Your task to perform on an android device: Open Google Chrome and open the bookmarks view Image 0: 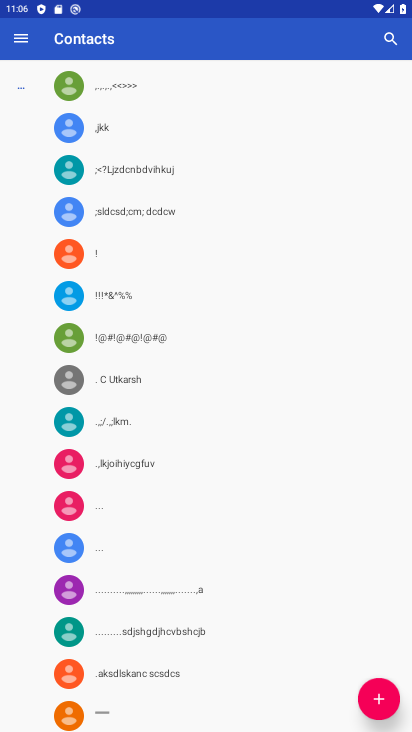
Step 0: press home button
Your task to perform on an android device: Open Google Chrome and open the bookmarks view Image 1: 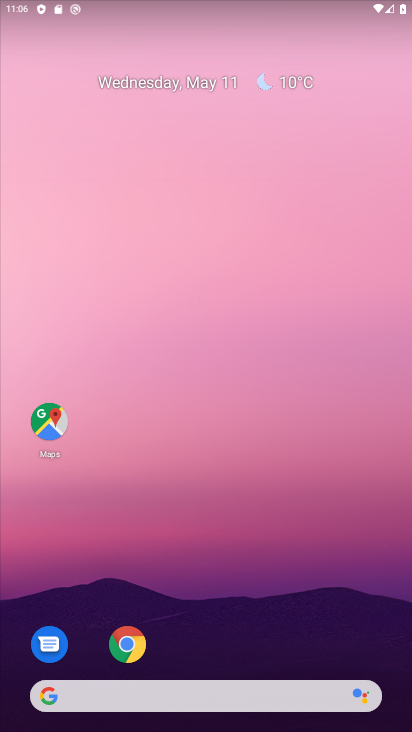
Step 1: drag from (288, 541) to (321, 45)
Your task to perform on an android device: Open Google Chrome and open the bookmarks view Image 2: 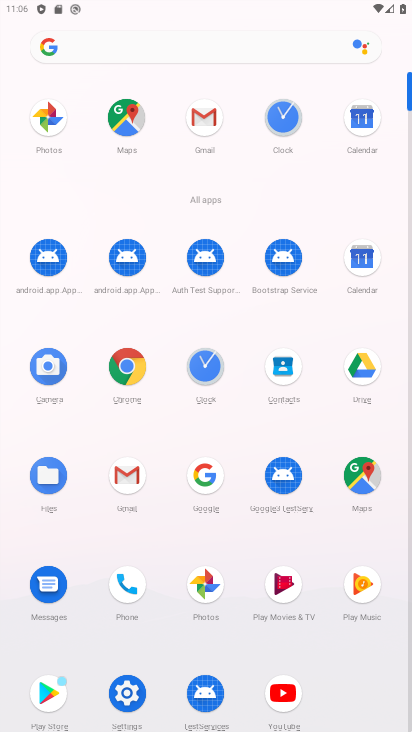
Step 2: click (132, 373)
Your task to perform on an android device: Open Google Chrome and open the bookmarks view Image 3: 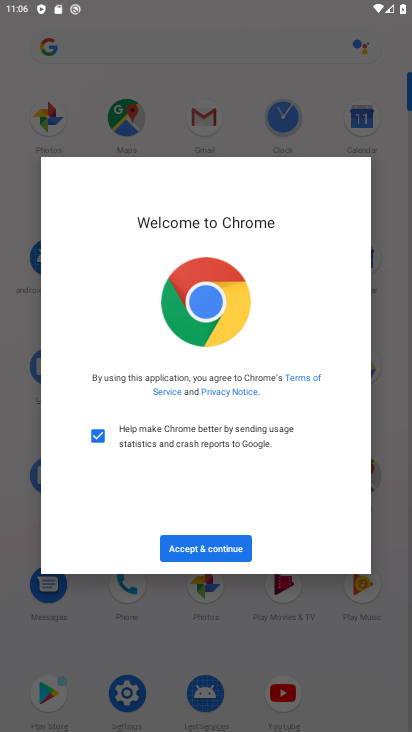
Step 3: click (209, 550)
Your task to perform on an android device: Open Google Chrome and open the bookmarks view Image 4: 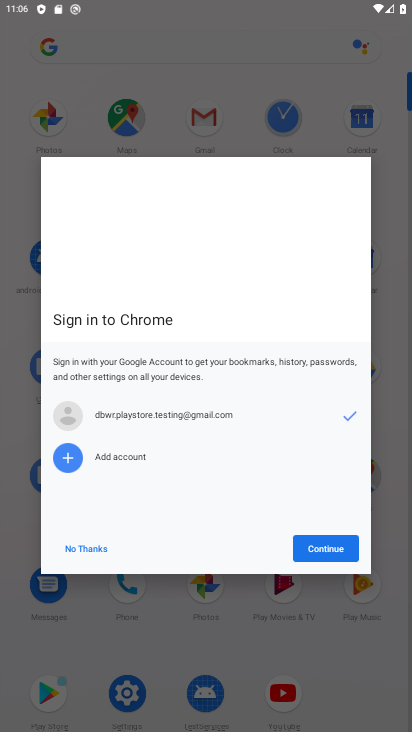
Step 4: click (342, 541)
Your task to perform on an android device: Open Google Chrome and open the bookmarks view Image 5: 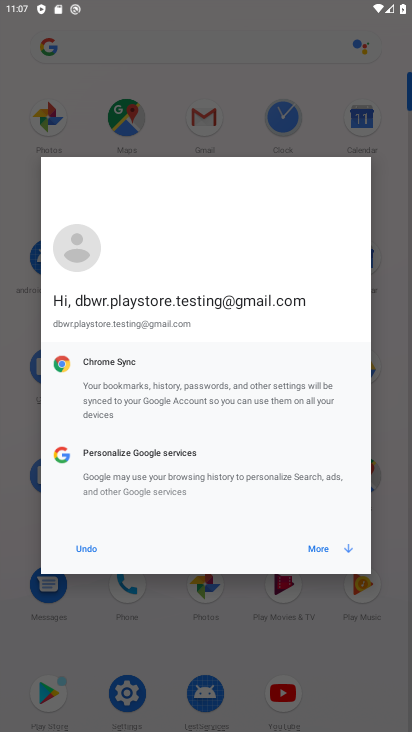
Step 5: click (324, 548)
Your task to perform on an android device: Open Google Chrome and open the bookmarks view Image 6: 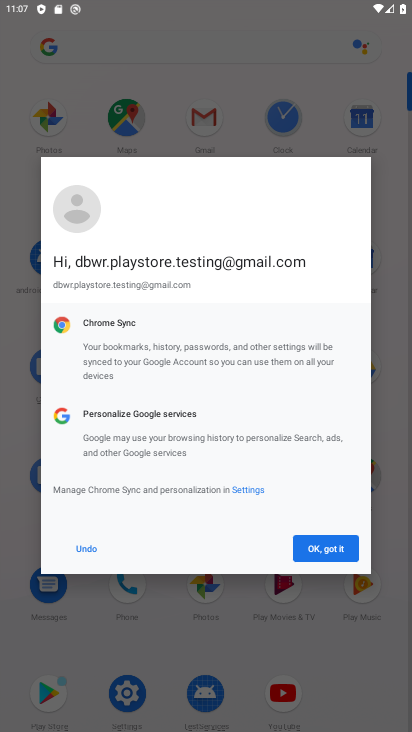
Step 6: click (311, 555)
Your task to perform on an android device: Open Google Chrome and open the bookmarks view Image 7: 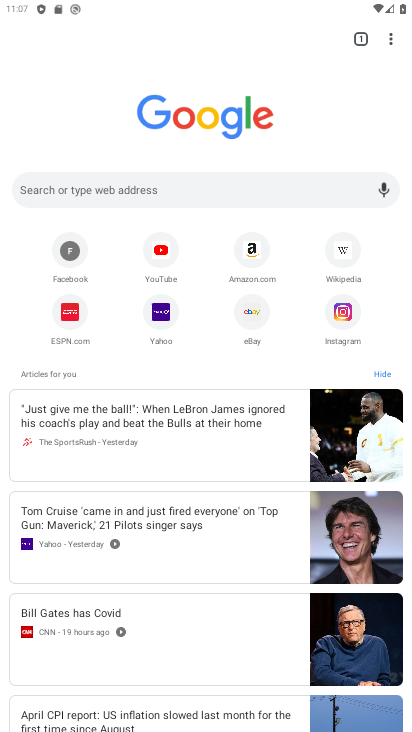
Step 7: task complete